Your task to perform on an android device: Open CNN.com Image 0: 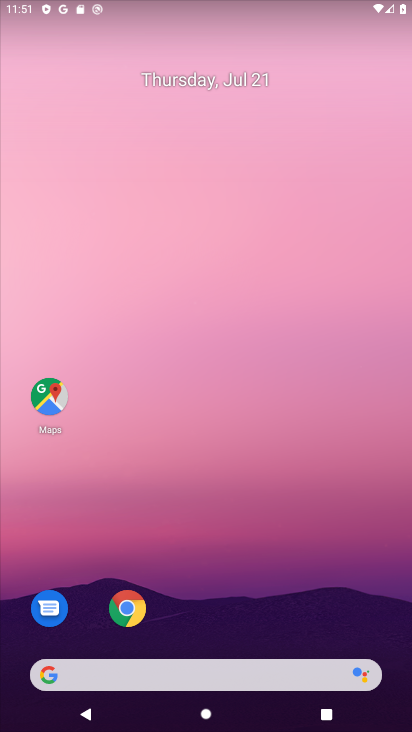
Step 0: press home button
Your task to perform on an android device: Open CNN.com Image 1: 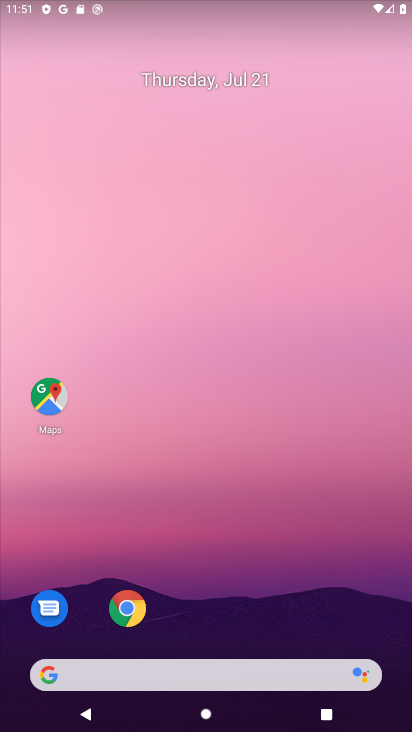
Step 1: click (123, 603)
Your task to perform on an android device: Open CNN.com Image 2: 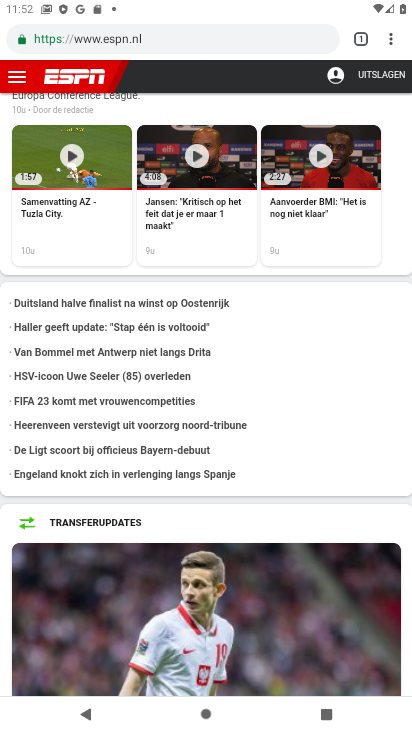
Step 2: click (358, 39)
Your task to perform on an android device: Open CNN.com Image 3: 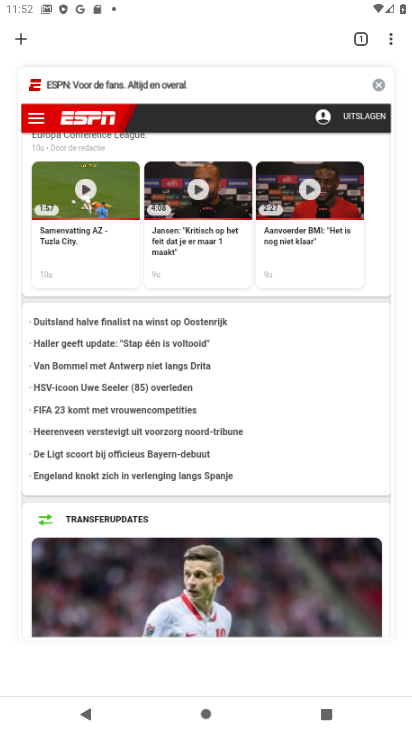
Step 3: click (18, 38)
Your task to perform on an android device: Open CNN.com Image 4: 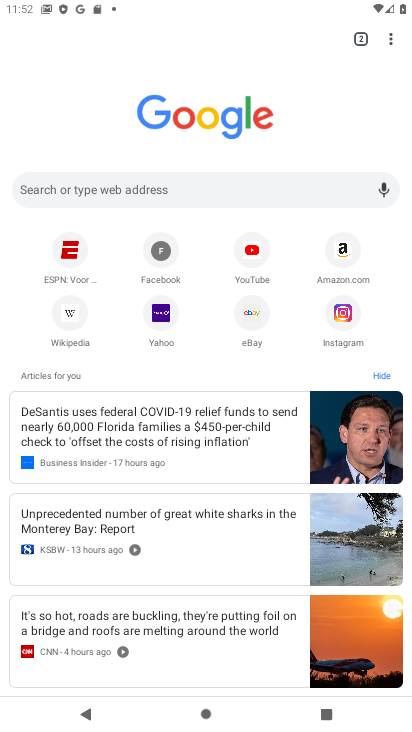
Step 4: click (127, 191)
Your task to perform on an android device: Open CNN.com Image 5: 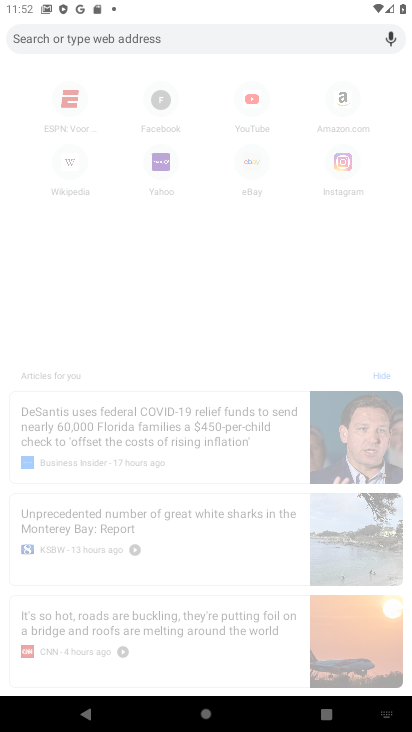
Step 5: type "cnn.com"
Your task to perform on an android device: Open CNN.com Image 6: 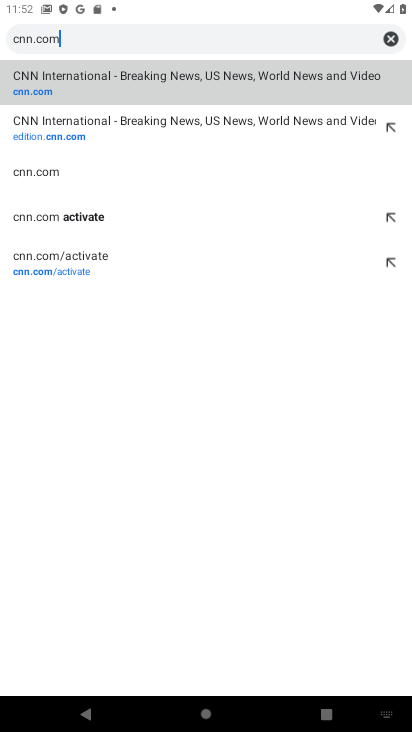
Step 6: click (76, 80)
Your task to perform on an android device: Open CNN.com Image 7: 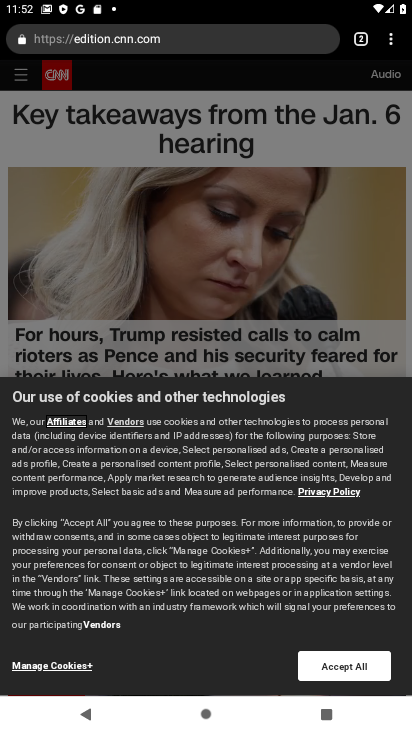
Step 7: click (348, 663)
Your task to perform on an android device: Open CNN.com Image 8: 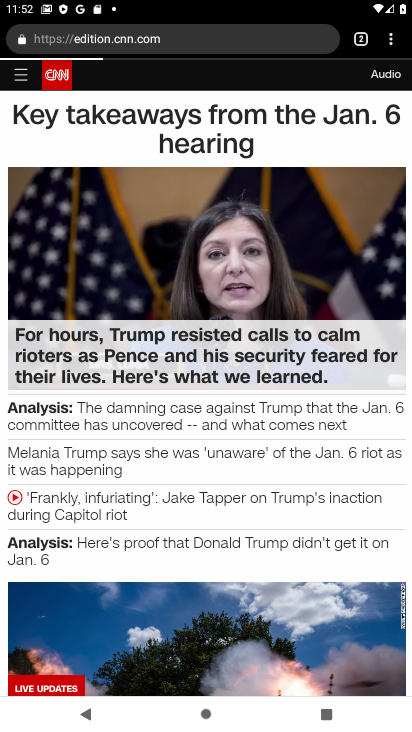
Step 8: task complete